Your task to perform on an android device: Do I have any events tomorrow? Image 0: 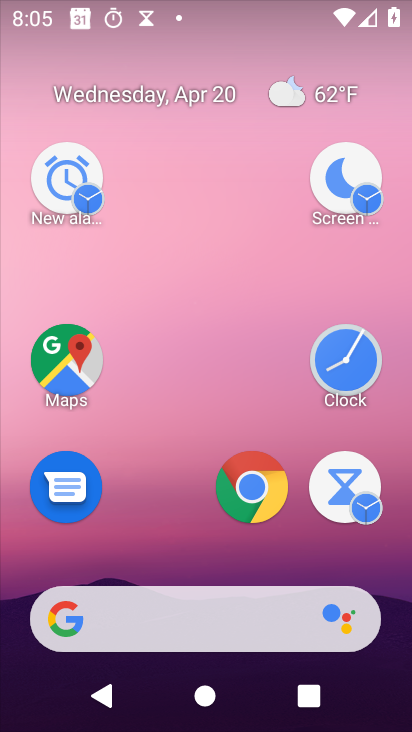
Step 0: drag from (265, 703) to (168, 64)
Your task to perform on an android device: Do I have any events tomorrow? Image 1: 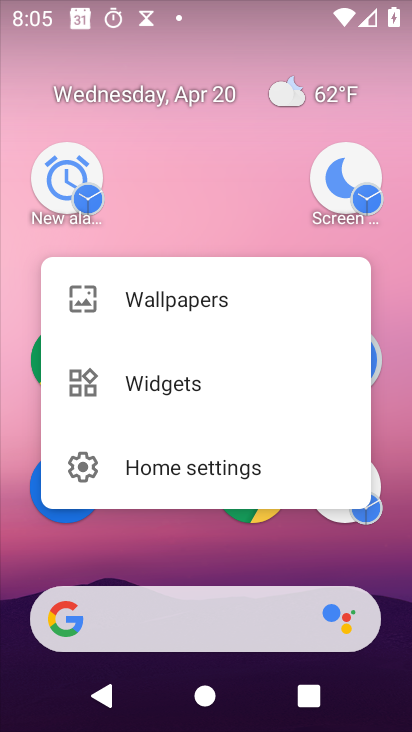
Step 1: click (186, 231)
Your task to perform on an android device: Do I have any events tomorrow? Image 2: 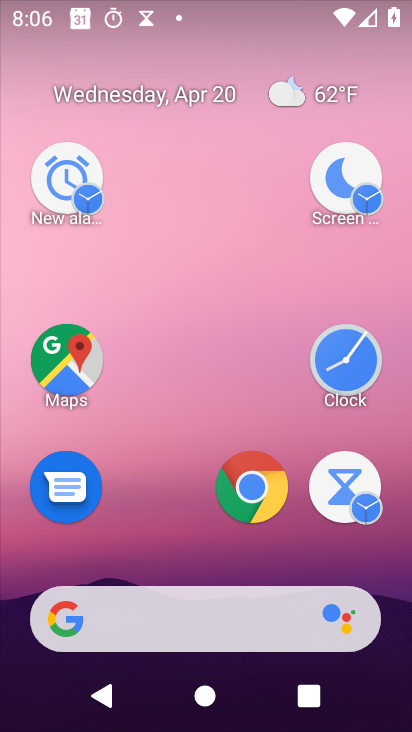
Step 2: drag from (276, 606) to (99, 10)
Your task to perform on an android device: Do I have any events tomorrow? Image 3: 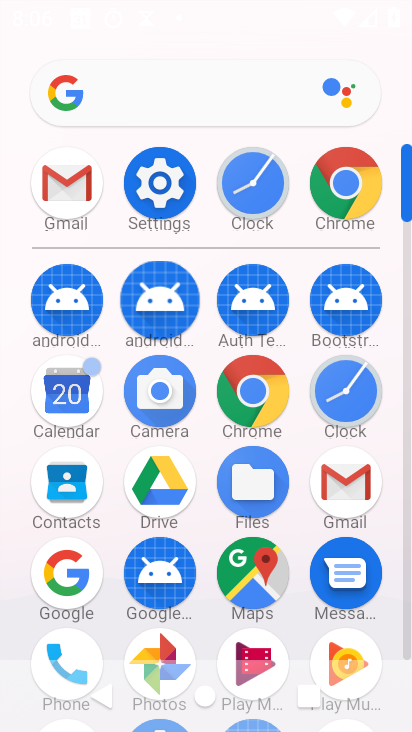
Step 3: drag from (52, 188) to (72, 123)
Your task to perform on an android device: Do I have any events tomorrow? Image 4: 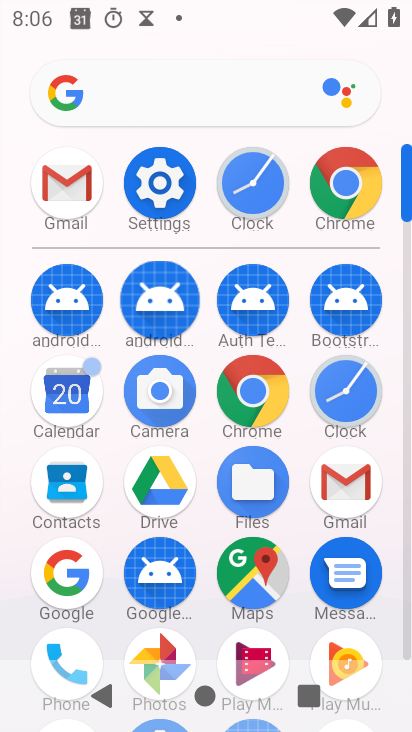
Step 4: click (57, 393)
Your task to perform on an android device: Do I have any events tomorrow? Image 5: 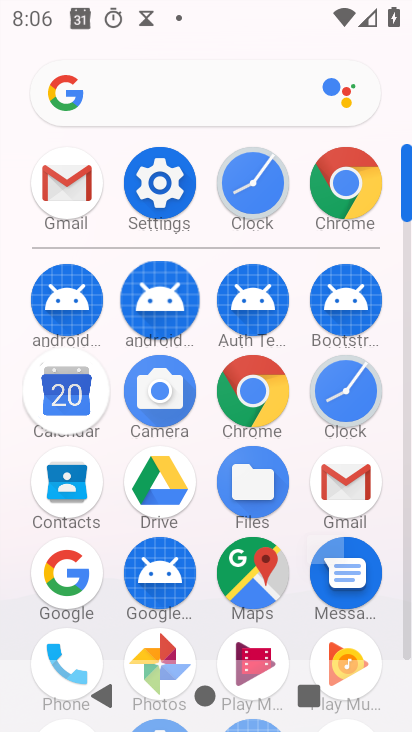
Step 5: click (58, 393)
Your task to perform on an android device: Do I have any events tomorrow? Image 6: 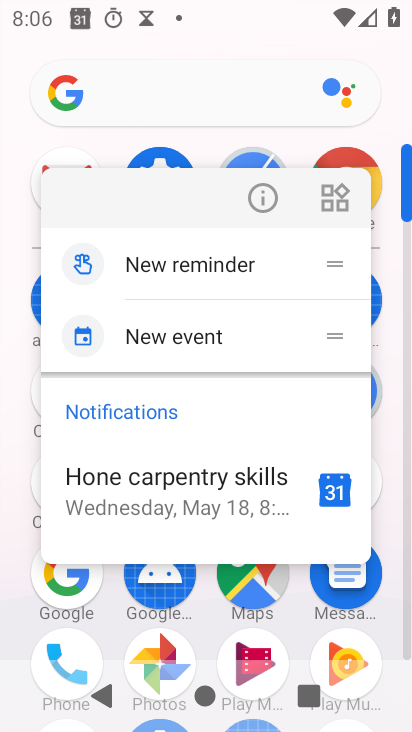
Step 6: click (113, 138)
Your task to perform on an android device: Do I have any events tomorrow? Image 7: 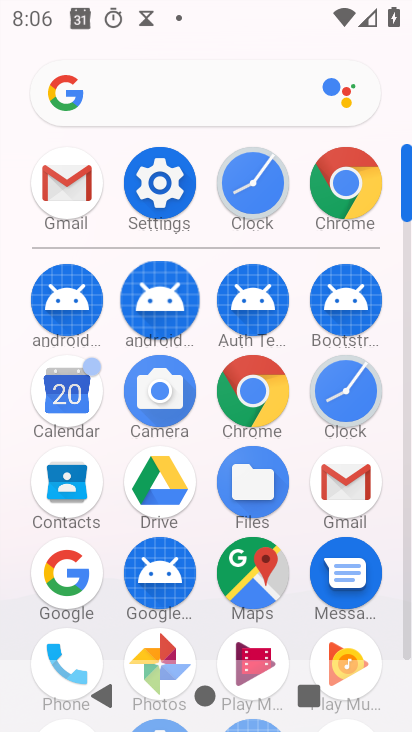
Step 7: click (77, 392)
Your task to perform on an android device: Do I have any events tomorrow? Image 8: 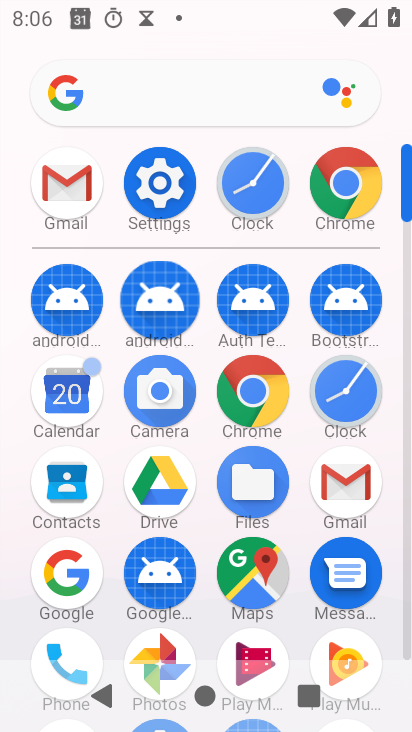
Step 8: click (77, 392)
Your task to perform on an android device: Do I have any events tomorrow? Image 9: 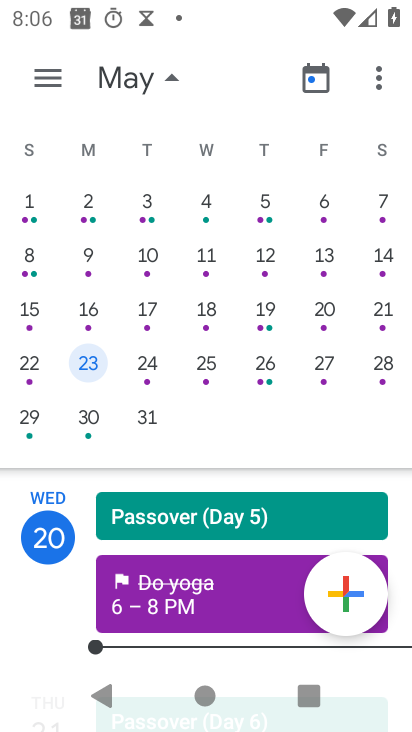
Step 9: drag from (156, 553) to (211, 32)
Your task to perform on an android device: Do I have any events tomorrow? Image 10: 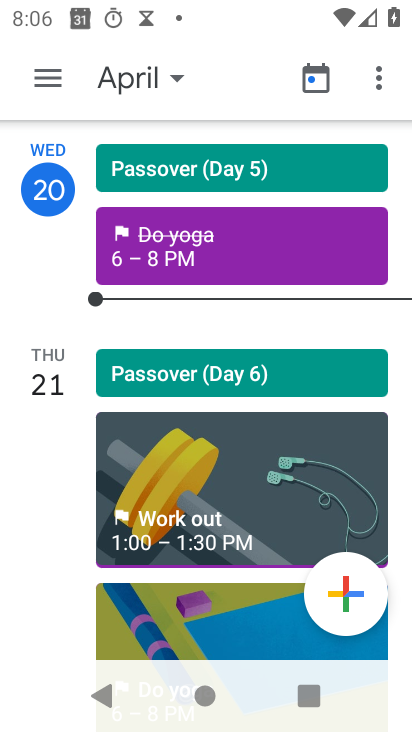
Step 10: drag from (154, 522) to (159, 274)
Your task to perform on an android device: Do I have any events tomorrow? Image 11: 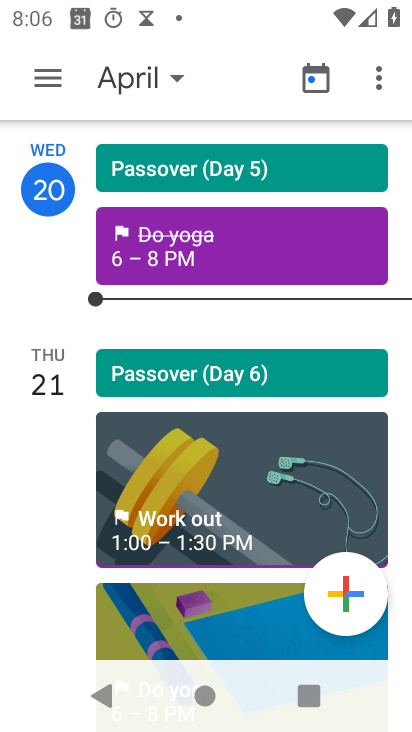
Step 11: drag from (150, 252) to (150, 101)
Your task to perform on an android device: Do I have any events tomorrow? Image 12: 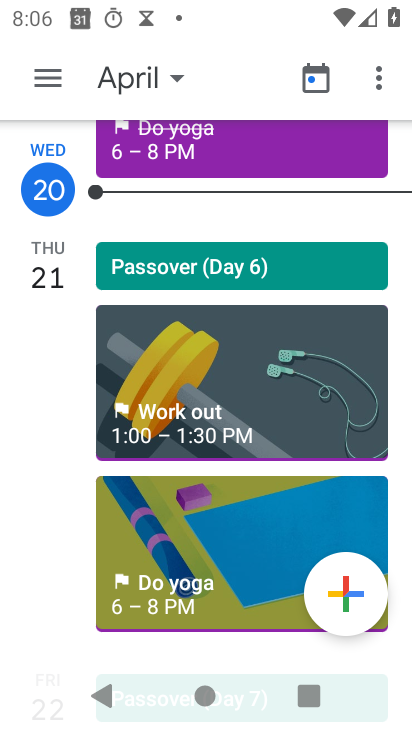
Step 12: drag from (183, 489) to (181, 243)
Your task to perform on an android device: Do I have any events tomorrow? Image 13: 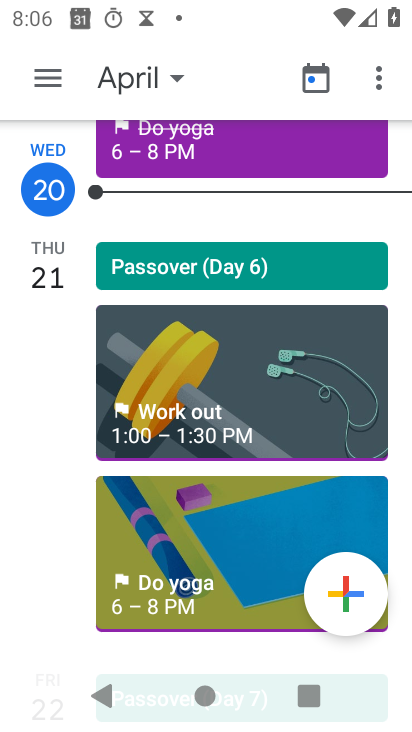
Step 13: click (120, 112)
Your task to perform on an android device: Do I have any events tomorrow? Image 14: 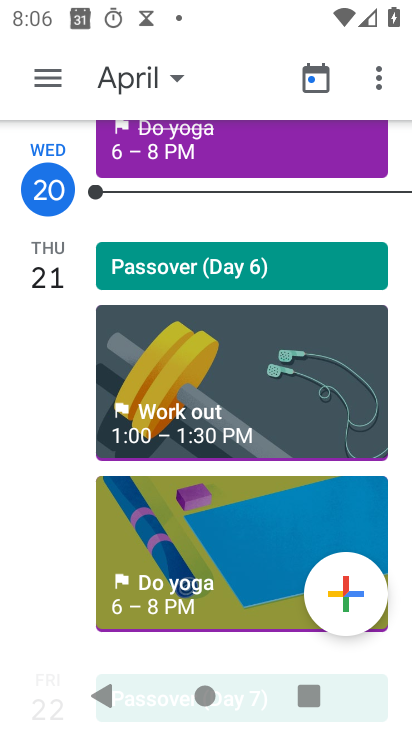
Step 14: drag from (207, 523) to (202, 22)
Your task to perform on an android device: Do I have any events tomorrow? Image 15: 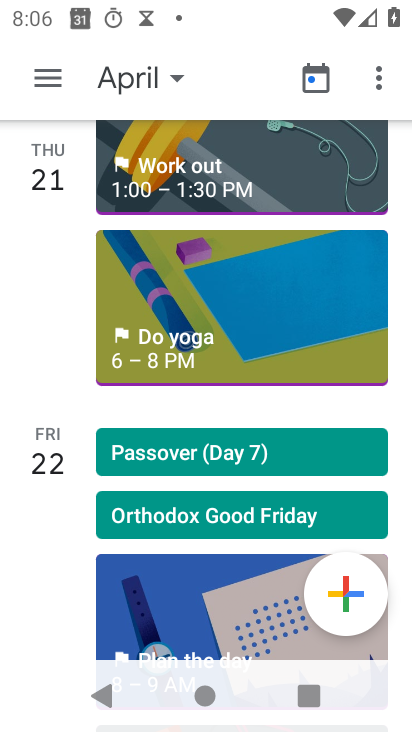
Step 15: drag from (179, 510) to (161, 97)
Your task to perform on an android device: Do I have any events tomorrow? Image 16: 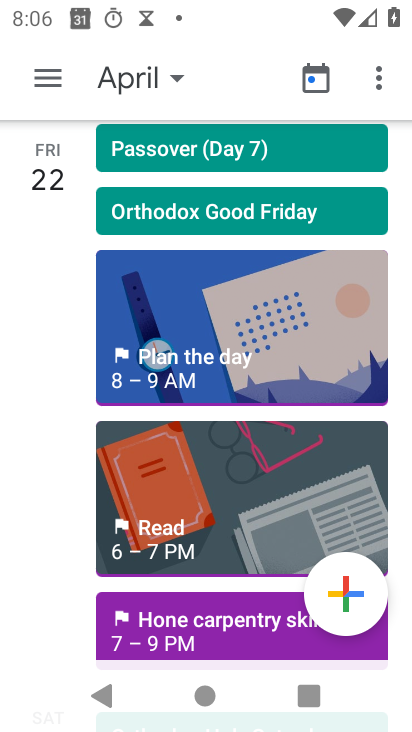
Step 16: click (177, 486)
Your task to perform on an android device: Do I have any events tomorrow? Image 17: 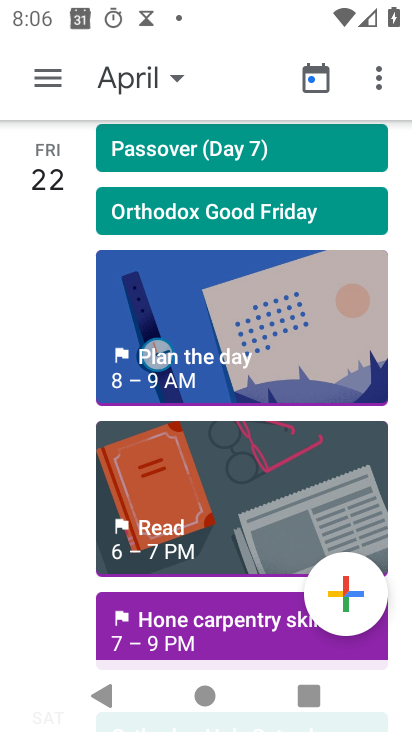
Step 17: task complete